Your task to perform on an android device: star an email in the gmail app Image 0: 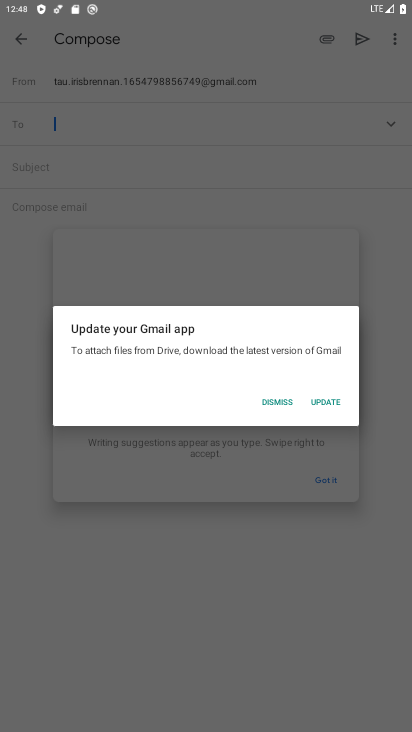
Step 0: press home button
Your task to perform on an android device: star an email in the gmail app Image 1: 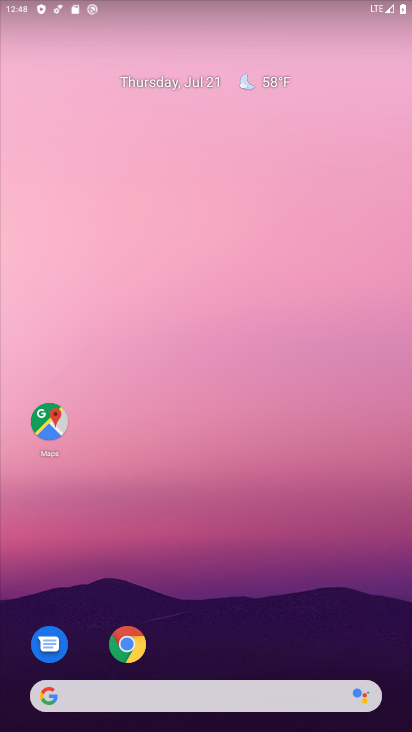
Step 1: drag from (269, 585) to (309, 330)
Your task to perform on an android device: star an email in the gmail app Image 2: 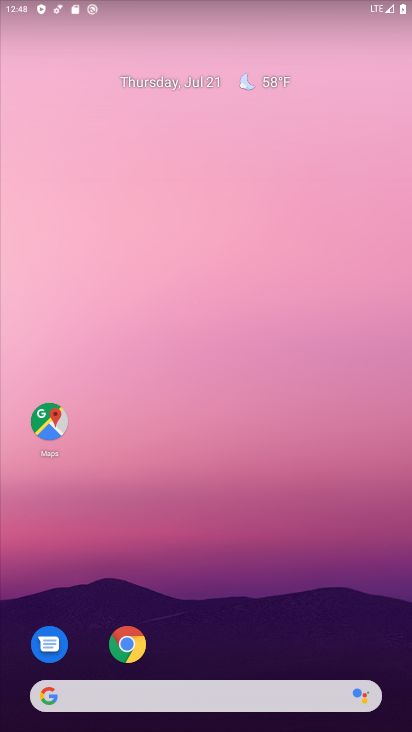
Step 2: drag from (309, 643) to (374, 53)
Your task to perform on an android device: star an email in the gmail app Image 3: 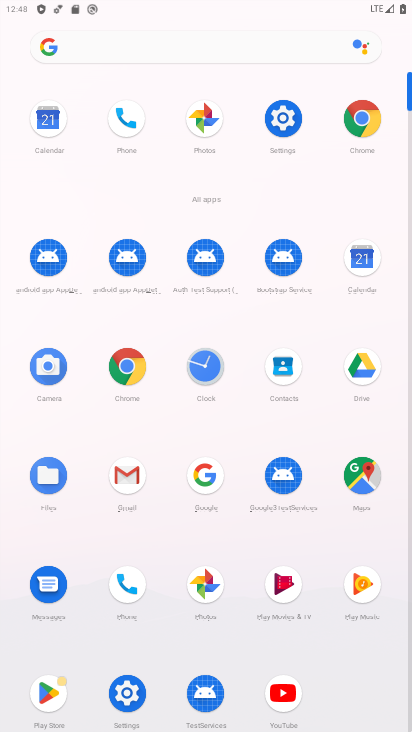
Step 3: click (127, 474)
Your task to perform on an android device: star an email in the gmail app Image 4: 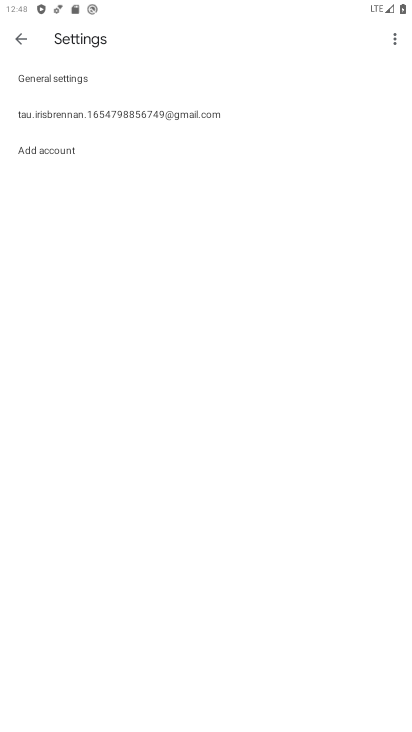
Step 4: press back button
Your task to perform on an android device: star an email in the gmail app Image 5: 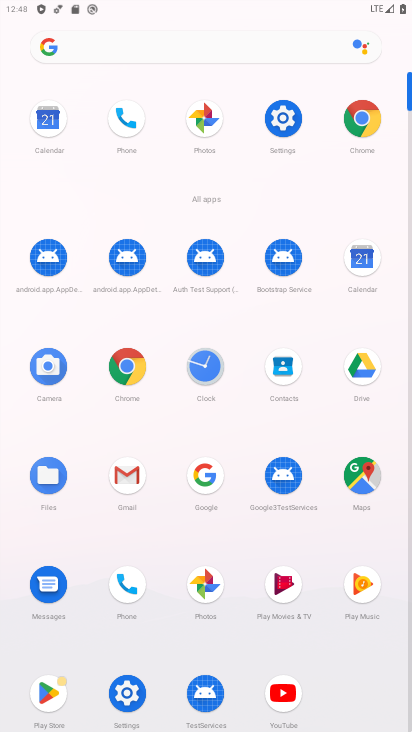
Step 5: click (126, 487)
Your task to perform on an android device: star an email in the gmail app Image 6: 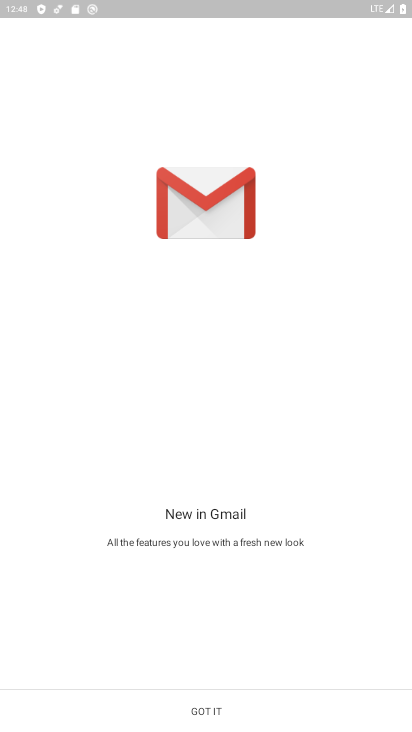
Step 6: click (224, 696)
Your task to perform on an android device: star an email in the gmail app Image 7: 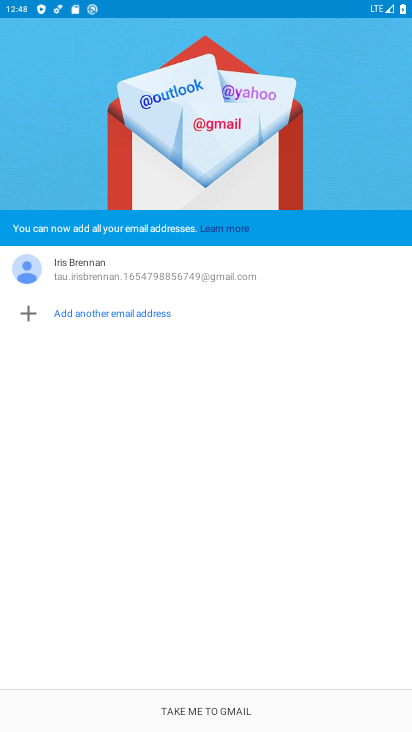
Step 7: click (242, 701)
Your task to perform on an android device: star an email in the gmail app Image 8: 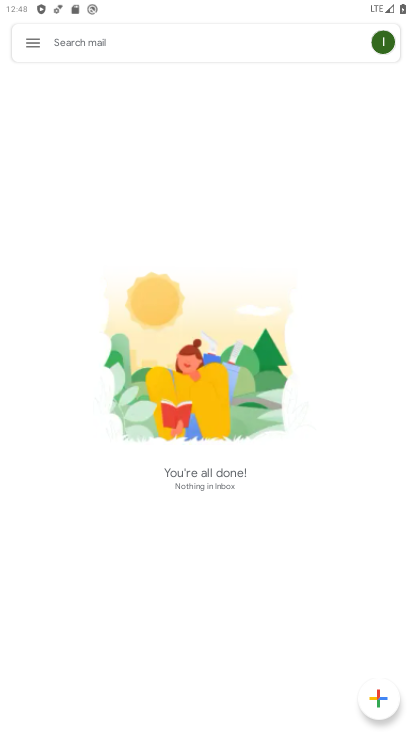
Step 8: click (32, 43)
Your task to perform on an android device: star an email in the gmail app Image 9: 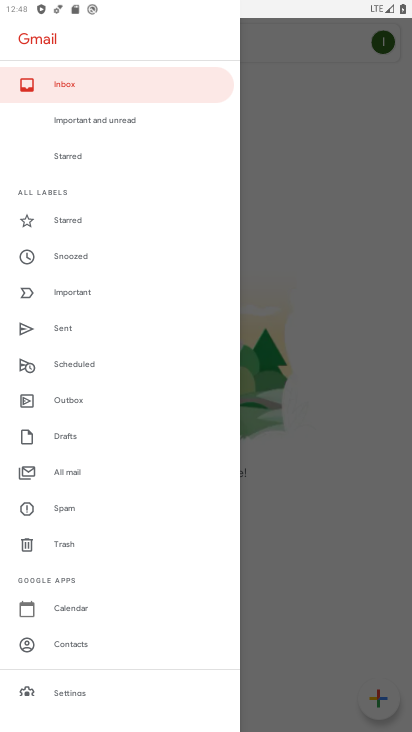
Step 9: click (94, 469)
Your task to perform on an android device: star an email in the gmail app Image 10: 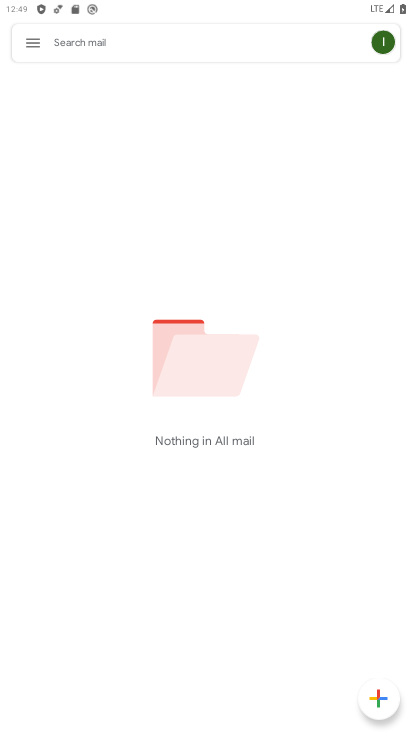
Step 10: task complete